Your task to perform on an android device: turn notification dots on Image 0: 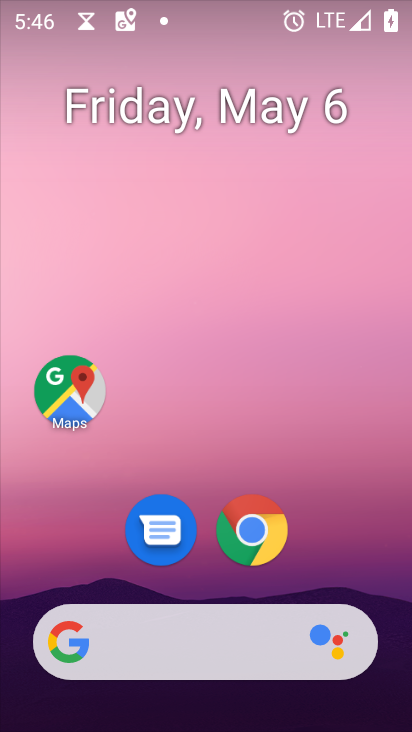
Step 0: drag from (322, 523) to (180, 51)
Your task to perform on an android device: turn notification dots on Image 1: 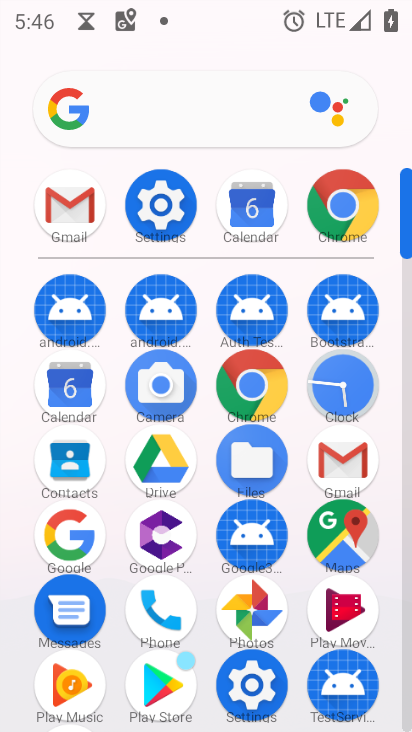
Step 1: click (157, 204)
Your task to perform on an android device: turn notification dots on Image 2: 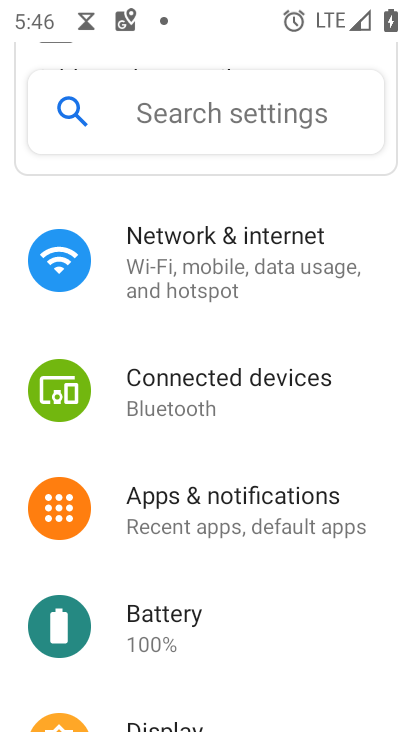
Step 2: click (248, 524)
Your task to perform on an android device: turn notification dots on Image 3: 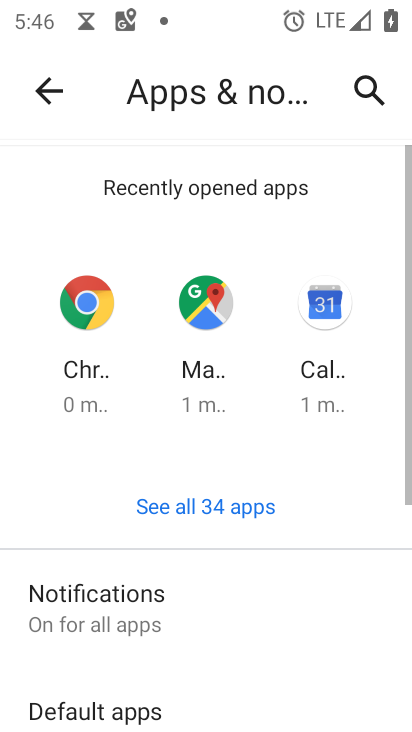
Step 3: click (119, 595)
Your task to perform on an android device: turn notification dots on Image 4: 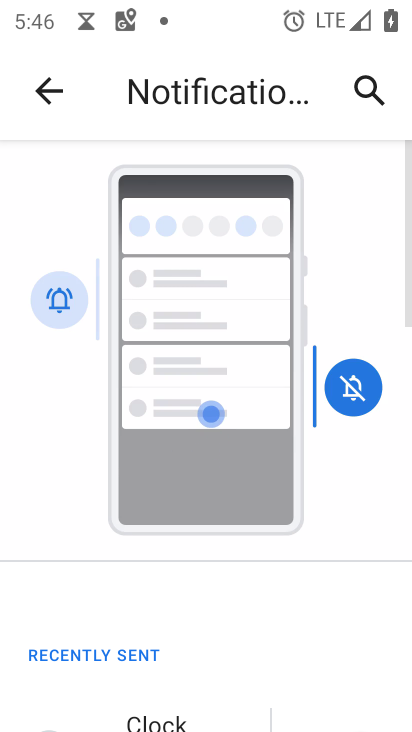
Step 4: drag from (225, 635) to (203, 57)
Your task to perform on an android device: turn notification dots on Image 5: 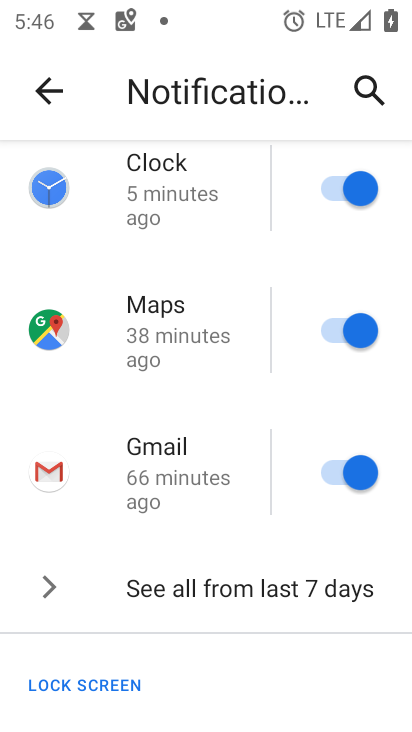
Step 5: drag from (210, 654) to (231, 170)
Your task to perform on an android device: turn notification dots on Image 6: 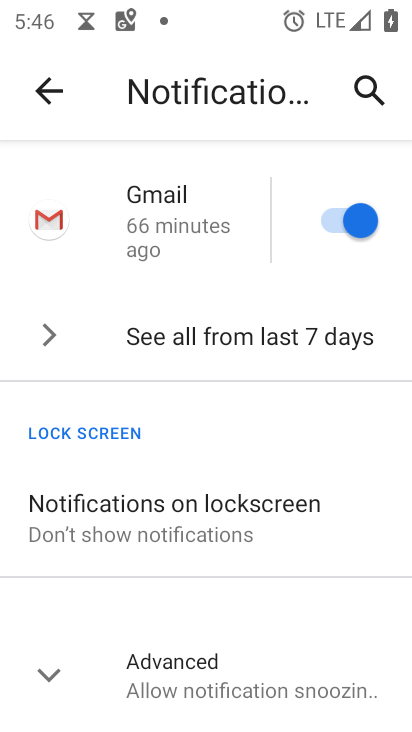
Step 6: click (200, 669)
Your task to perform on an android device: turn notification dots on Image 7: 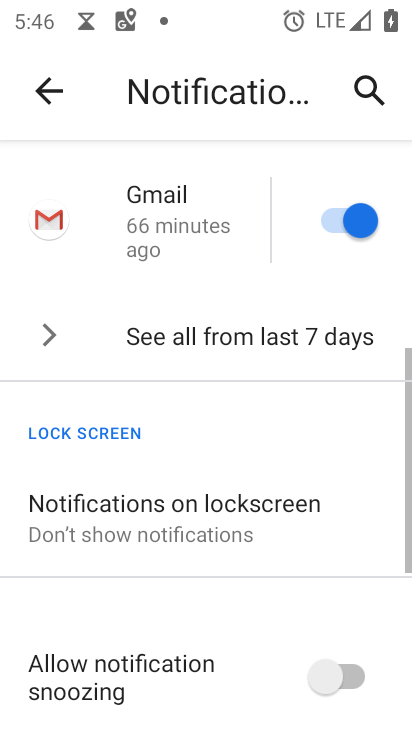
Step 7: task complete